Your task to perform on an android device: find which apps use the phone's location Image 0: 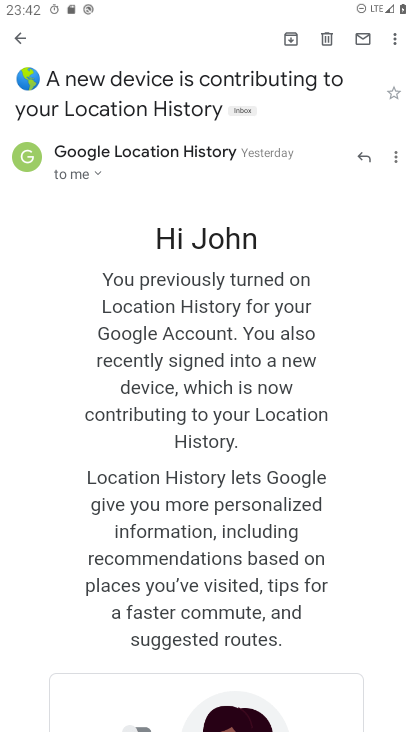
Step 0: press home button
Your task to perform on an android device: find which apps use the phone's location Image 1: 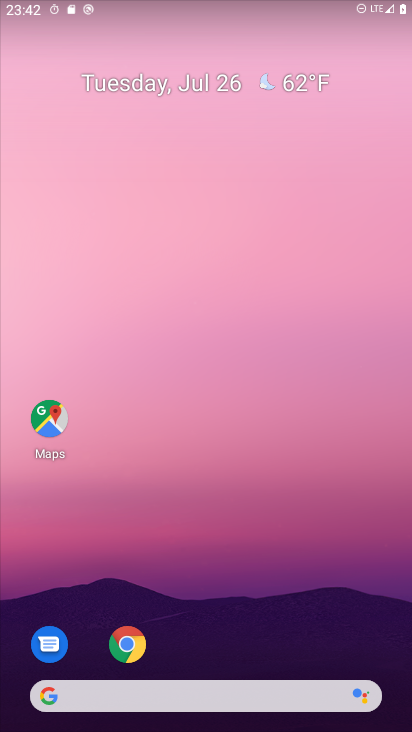
Step 1: drag from (279, 656) to (259, 0)
Your task to perform on an android device: find which apps use the phone's location Image 2: 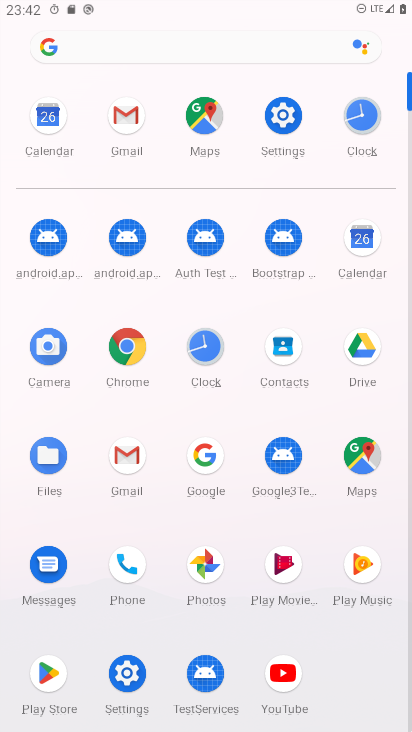
Step 2: click (287, 122)
Your task to perform on an android device: find which apps use the phone's location Image 3: 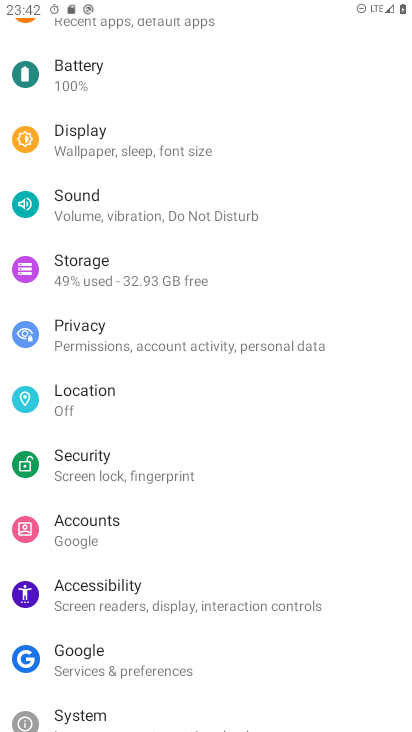
Step 3: click (100, 411)
Your task to perform on an android device: find which apps use the phone's location Image 4: 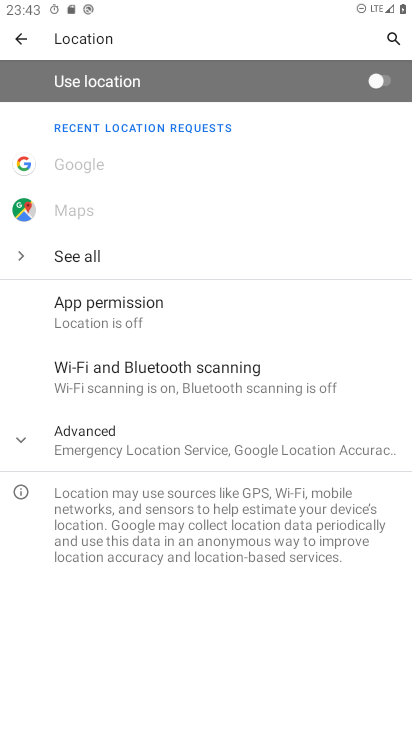
Step 4: click (88, 317)
Your task to perform on an android device: find which apps use the phone's location Image 5: 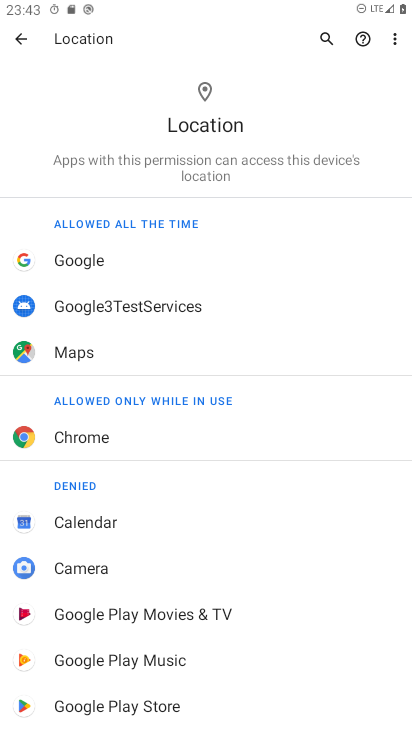
Step 5: task complete